Your task to perform on an android device: Turn on the flashlight Image 0: 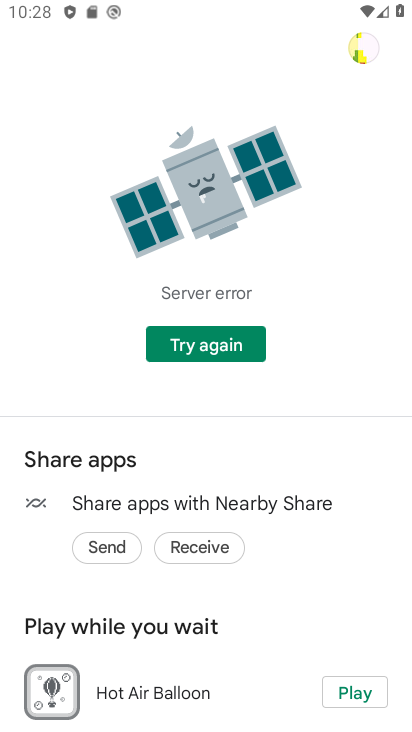
Step 0: press home button
Your task to perform on an android device: Turn on the flashlight Image 1: 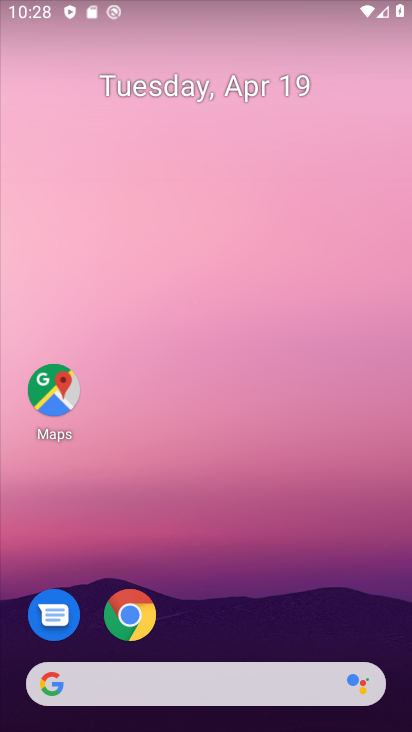
Step 1: drag from (152, 4) to (251, 706)
Your task to perform on an android device: Turn on the flashlight Image 2: 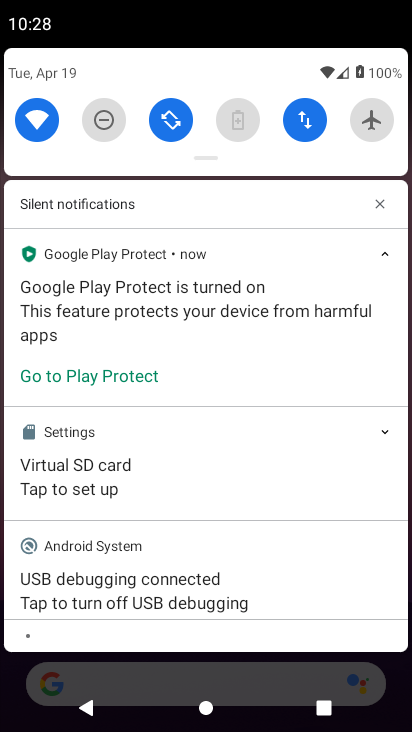
Step 2: drag from (264, 197) to (349, 708)
Your task to perform on an android device: Turn on the flashlight Image 3: 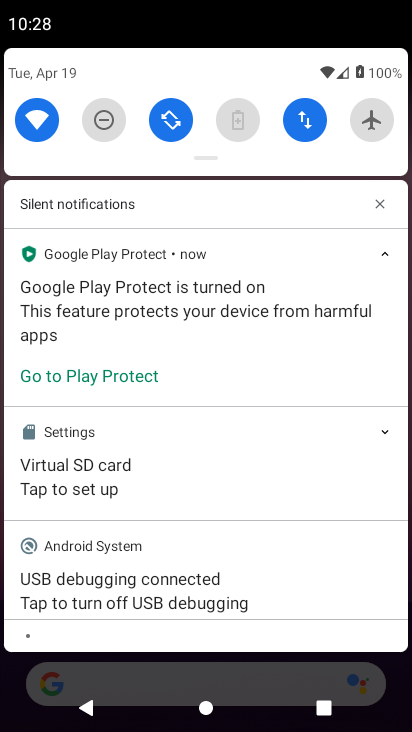
Step 3: drag from (271, 143) to (294, 719)
Your task to perform on an android device: Turn on the flashlight Image 4: 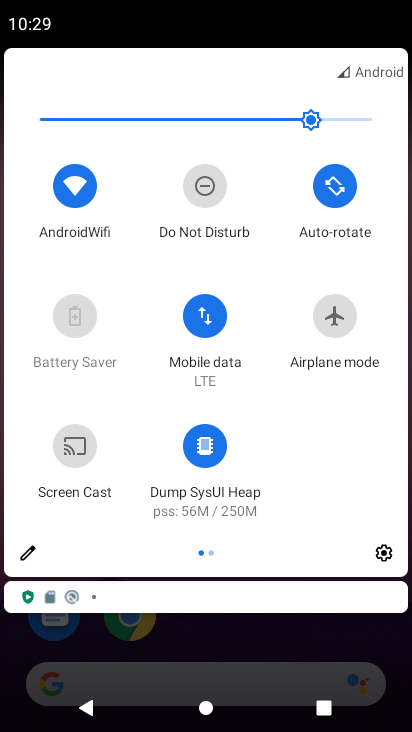
Step 4: click (27, 552)
Your task to perform on an android device: Turn on the flashlight Image 5: 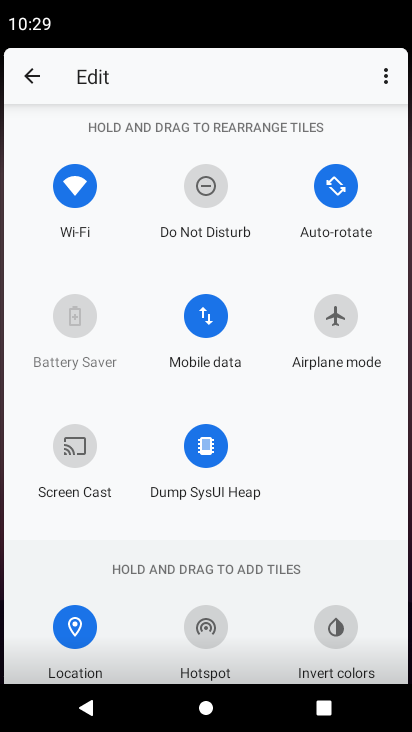
Step 5: task complete